Your task to perform on an android device: check android version Image 0: 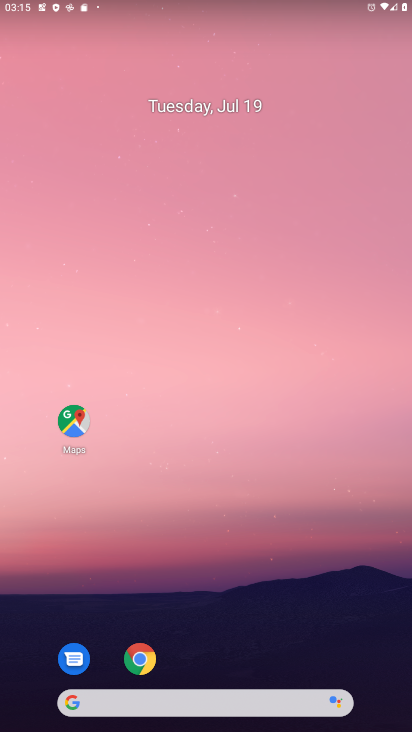
Step 0: press home button
Your task to perform on an android device: check android version Image 1: 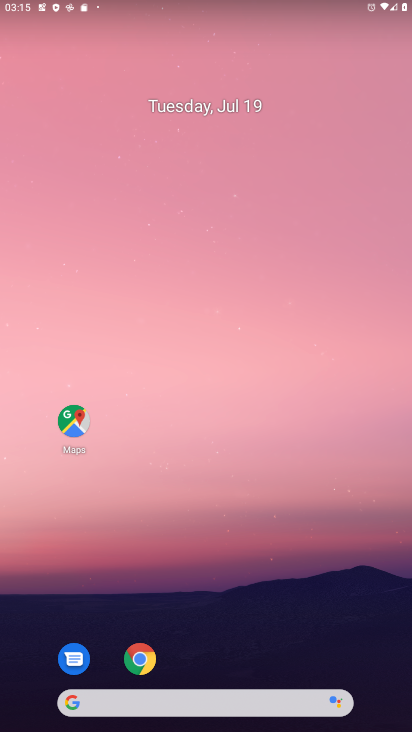
Step 1: click (142, 662)
Your task to perform on an android device: check android version Image 2: 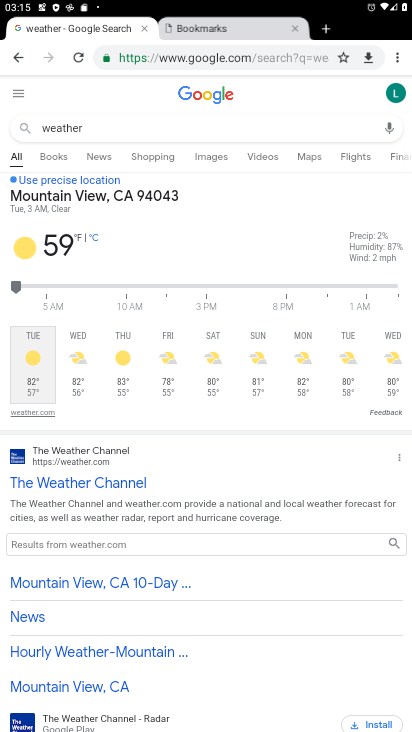
Step 2: press home button
Your task to perform on an android device: check android version Image 3: 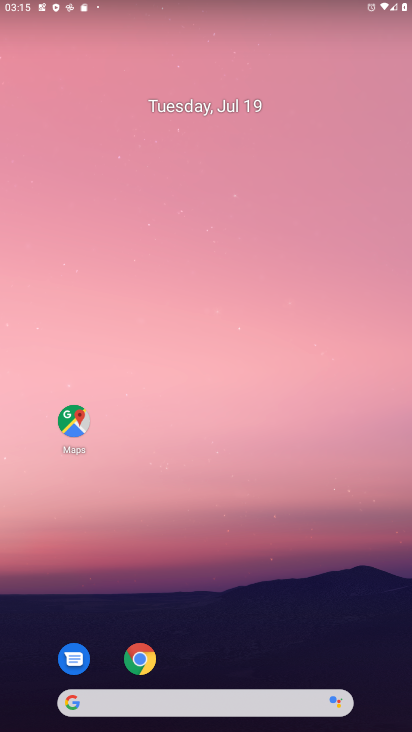
Step 3: drag from (343, 638) to (350, 0)
Your task to perform on an android device: check android version Image 4: 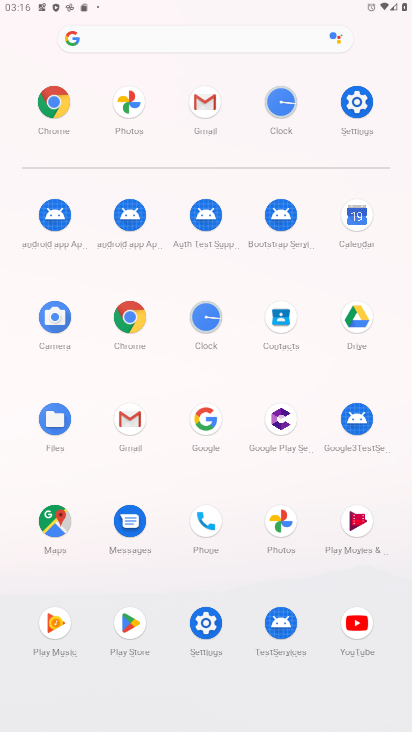
Step 4: click (218, 619)
Your task to perform on an android device: check android version Image 5: 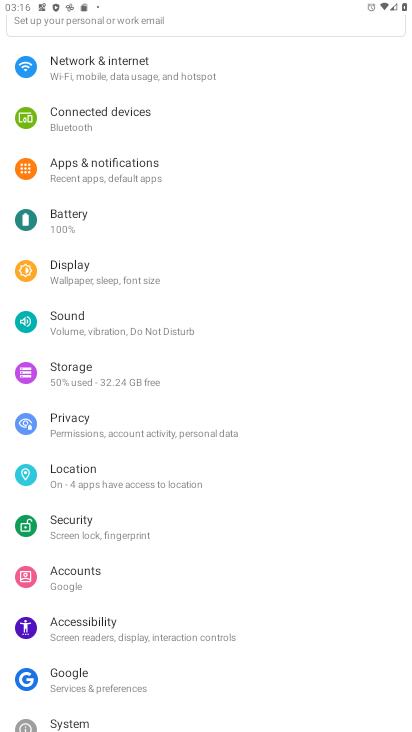
Step 5: drag from (114, 648) to (270, 149)
Your task to perform on an android device: check android version Image 6: 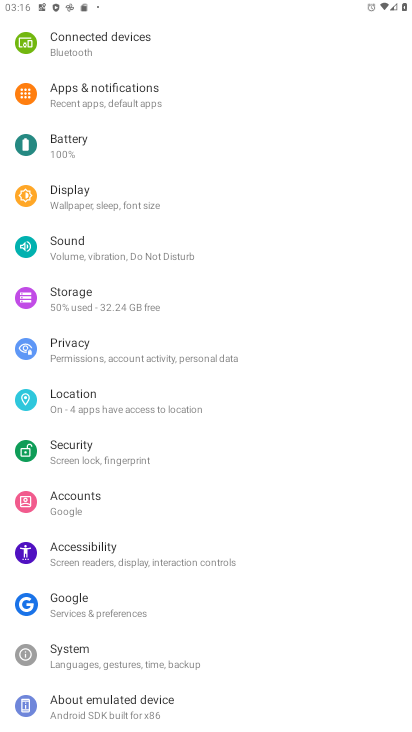
Step 6: click (97, 698)
Your task to perform on an android device: check android version Image 7: 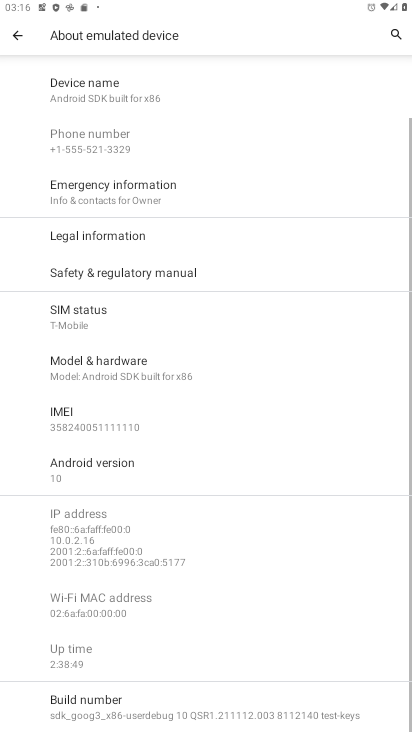
Step 7: click (109, 463)
Your task to perform on an android device: check android version Image 8: 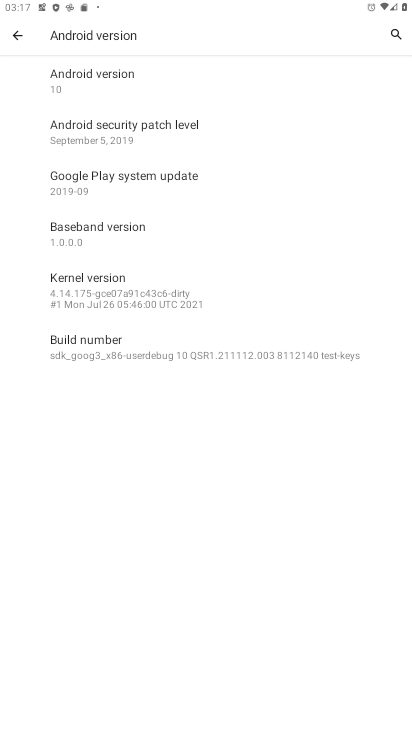
Step 8: task complete